Your task to perform on an android device: What is the recent news? Image 0: 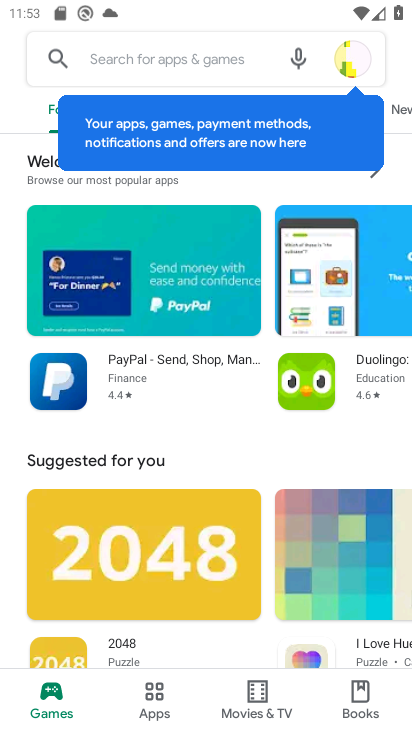
Step 0: press home button
Your task to perform on an android device: What is the recent news? Image 1: 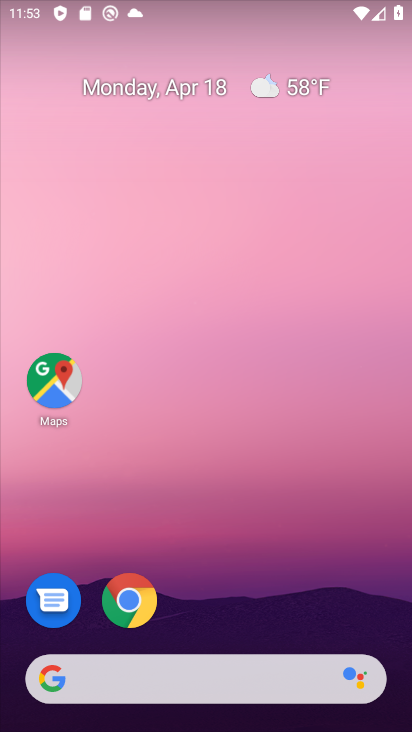
Step 1: click (137, 694)
Your task to perform on an android device: What is the recent news? Image 2: 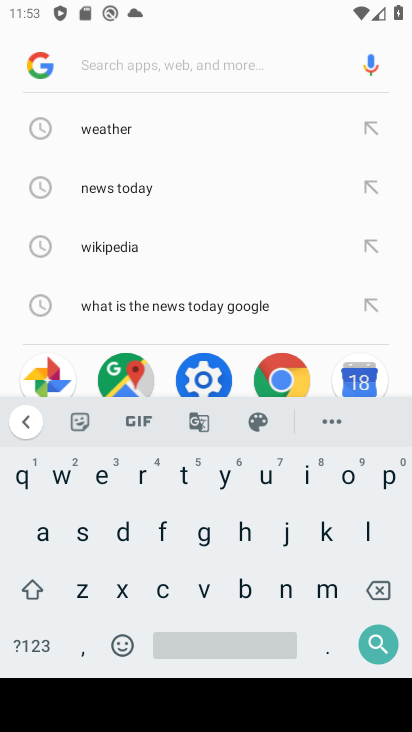
Step 2: click (53, 63)
Your task to perform on an android device: What is the recent news? Image 3: 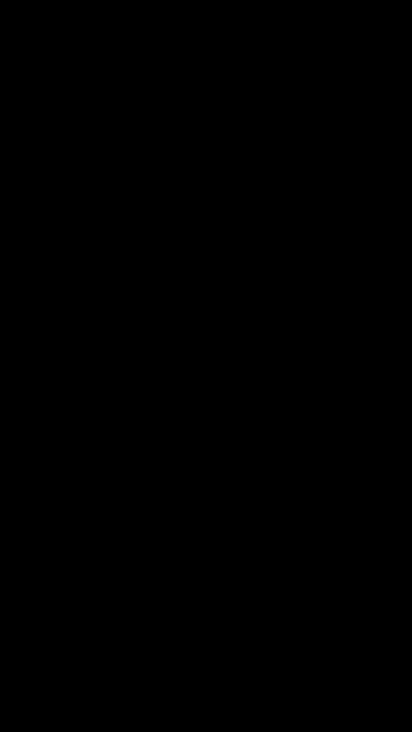
Step 3: task complete